Your task to perform on an android device: Show me popular videos on Youtube Image 0: 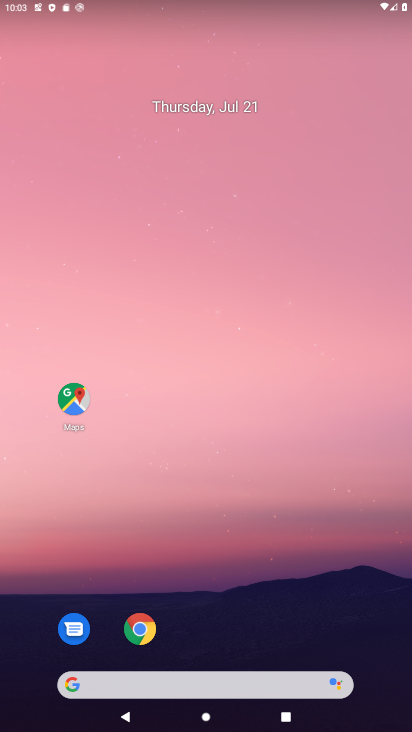
Step 0: drag from (204, 625) to (279, 65)
Your task to perform on an android device: Show me popular videos on Youtube Image 1: 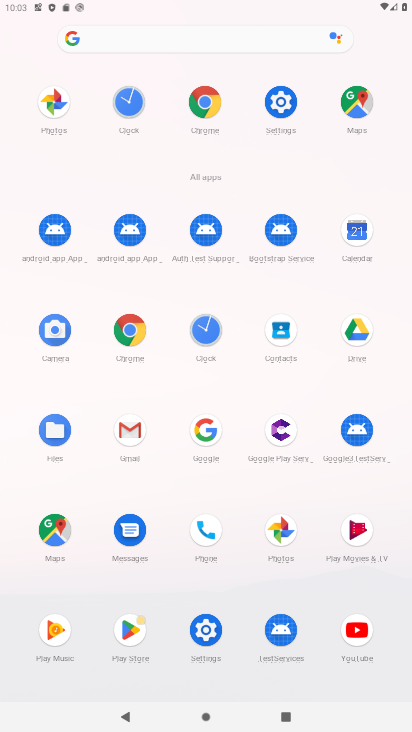
Step 1: click (363, 627)
Your task to perform on an android device: Show me popular videos on Youtube Image 2: 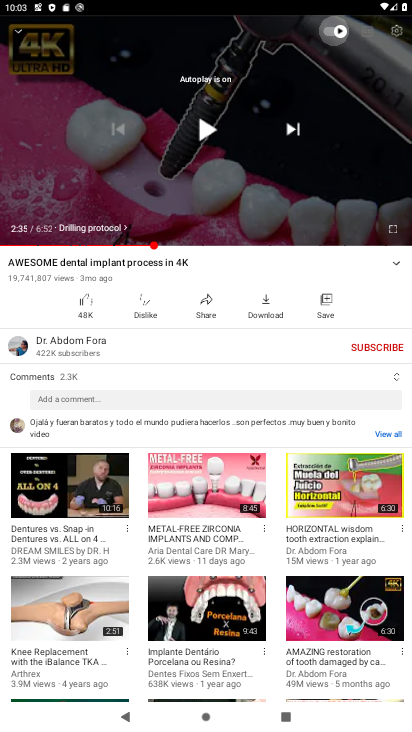
Step 2: click (27, 41)
Your task to perform on an android device: Show me popular videos on Youtube Image 3: 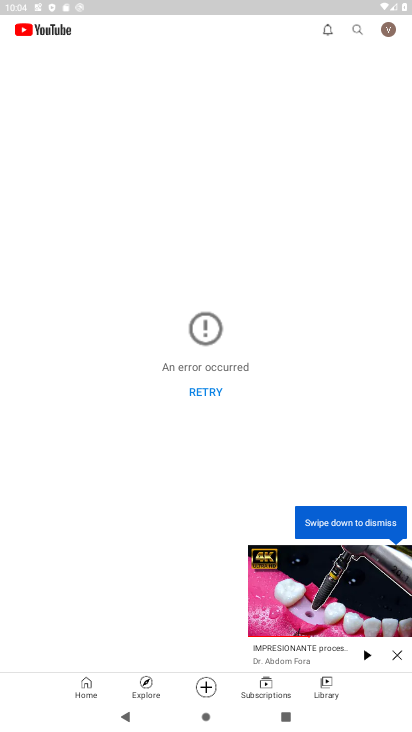
Step 3: click (143, 690)
Your task to perform on an android device: Show me popular videos on Youtube Image 4: 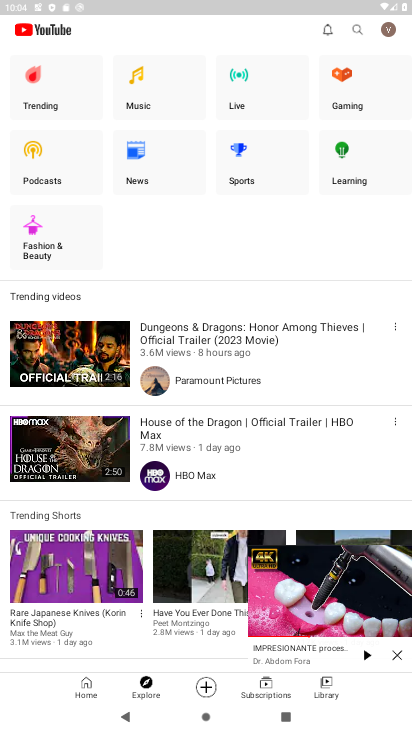
Step 4: click (32, 71)
Your task to perform on an android device: Show me popular videos on Youtube Image 5: 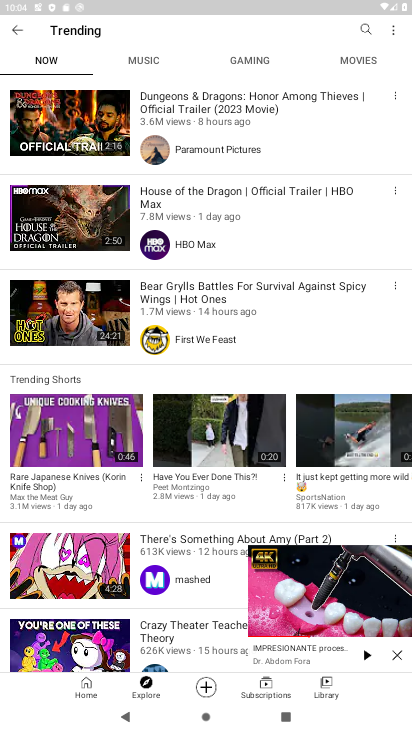
Step 5: task complete